Your task to perform on an android device: Show the shopping cart on costco. Image 0: 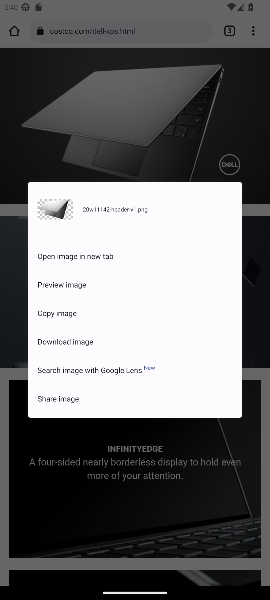
Step 0: click (214, 122)
Your task to perform on an android device: Show the shopping cart on costco. Image 1: 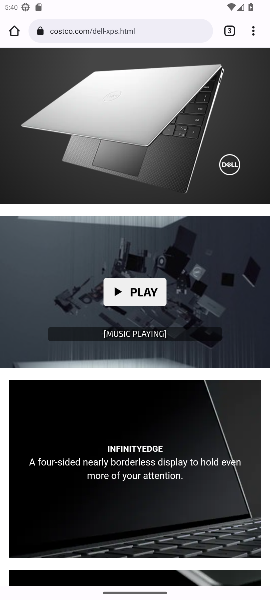
Step 1: press back button
Your task to perform on an android device: Show the shopping cart on costco. Image 2: 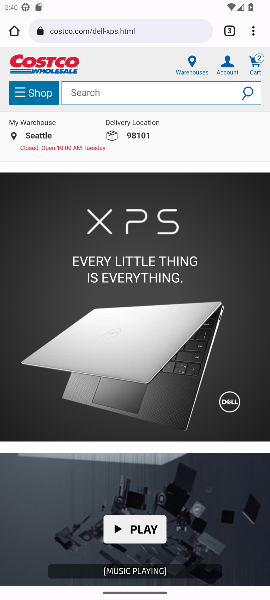
Step 2: click (256, 57)
Your task to perform on an android device: Show the shopping cart on costco. Image 3: 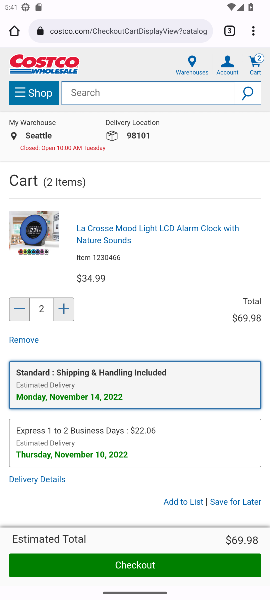
Step 3: task complete